Your task to perform on an android device: Search for logitech g910 on costco.com, select the first entry, add it to the cart, then select checkout. Image 0: 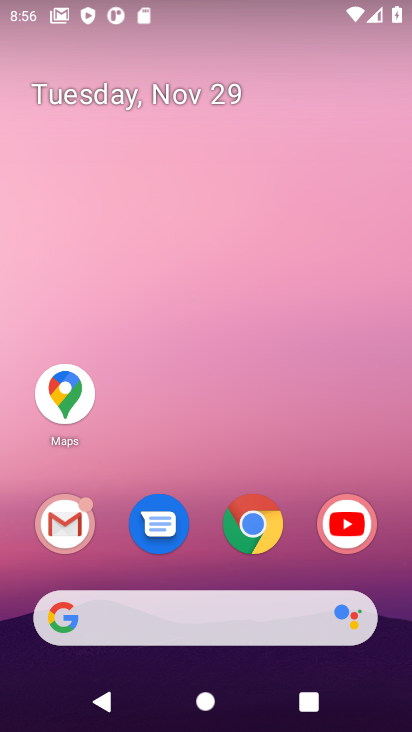
Step 0: click (255, 534)
Your task to perform on an android device: Search for logitech g910 on costco.com, select the first entry, add it to the cart, then select checkout. Image 1: 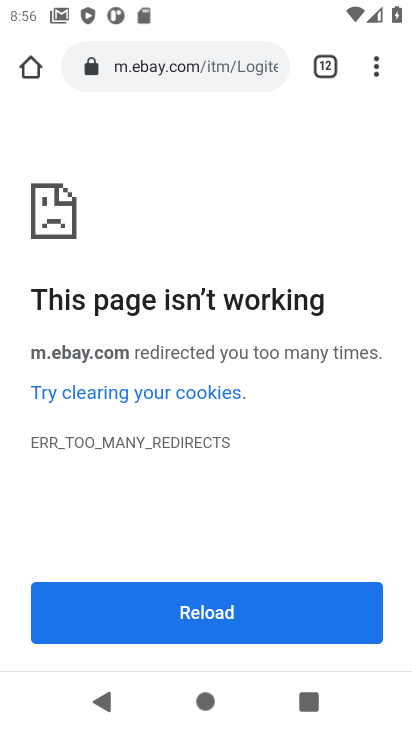
Step 1: click (162, 66)
Your task to perform on an android device: Search for logitech g910 on costco.com, select the first entry, add it to the cart, then select checkout. Image 2: 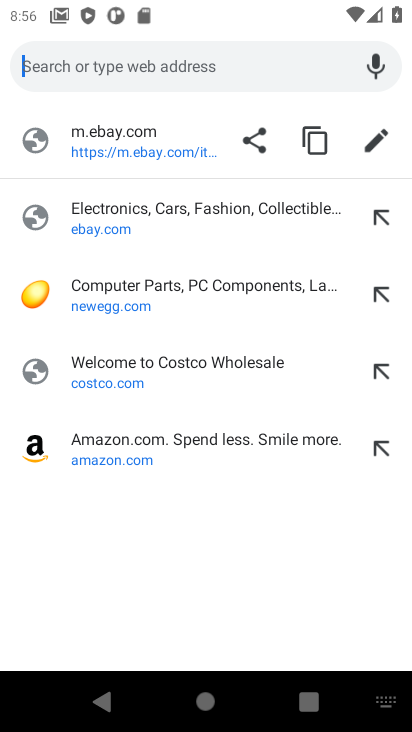
Step 2: click (99, 379)
Your task to perform on an android device: Search for logitech g910 on costco.com, select the first entry, add it to the cart, then select checkout. Image 3: 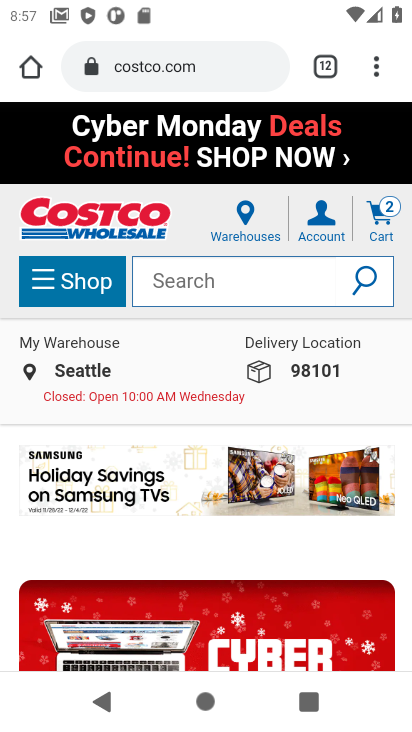
Step 3: click (167, 284)
Your task to perform on an android device: Search for logitech g910 on costco.com, select the first entry, add it to the cart, then select checkout. Image 4: 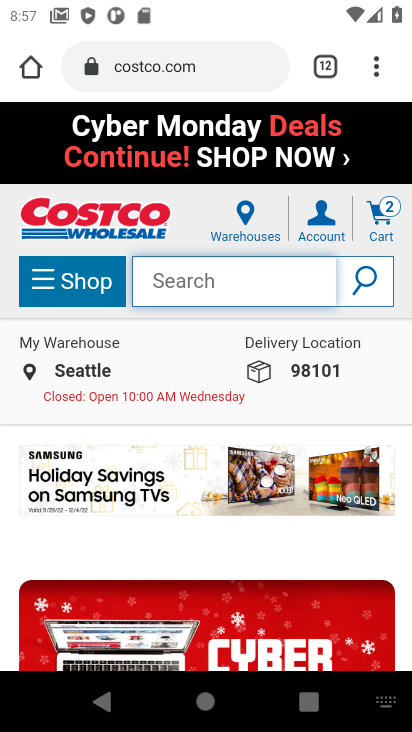
Step 4: type "logitech g910 "
Your task to perform on an android device: Search for logitech g910 on costco.com, select the first entry, add it to the cart, then select checkout. Image 5: 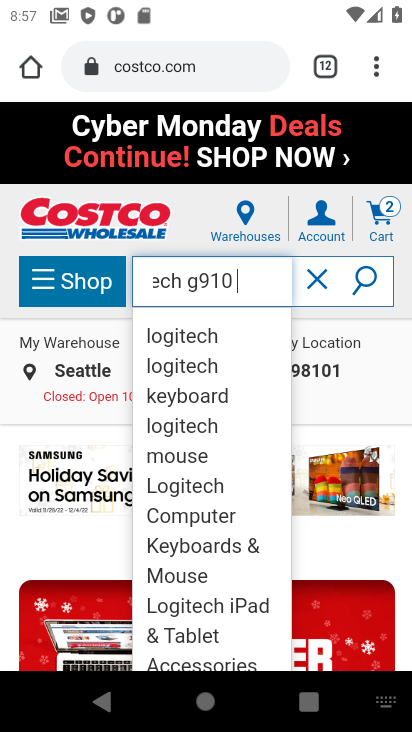
Step 5: click (356, 284)
Your task to perform on an android device: Search for logitech g910 on costco.com, select the first entry, add it to the cart, then select checkout. Image 6: 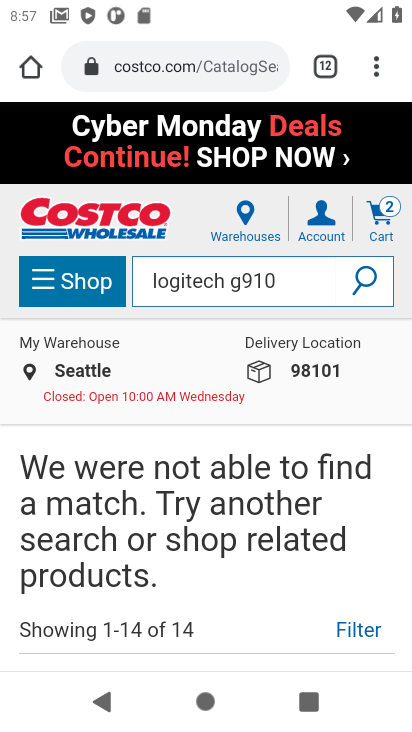
Step 6: task complete